Your task to perform on an android device: Open my contact list Image 0: 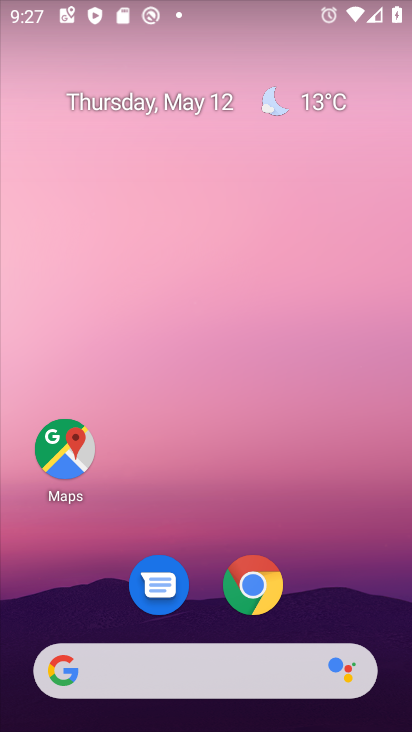
Step 0: drag from (206, 488) to (175, 34)
Your task to perform on an android device: Open my contact list Image 1: 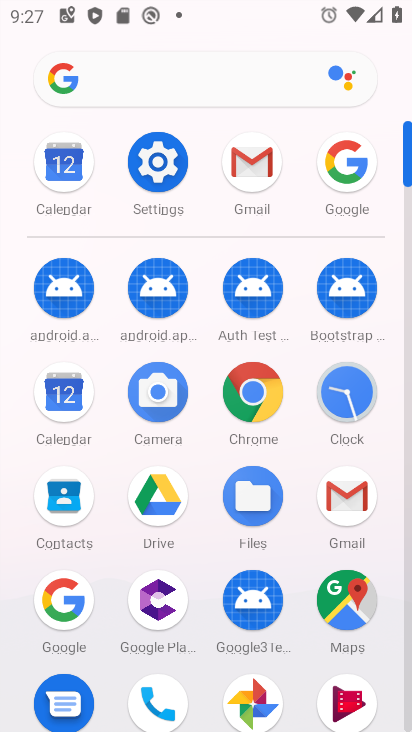
Step 1: click (64, 500)
Your task to perform on an android device: Open my contact list Image 2: 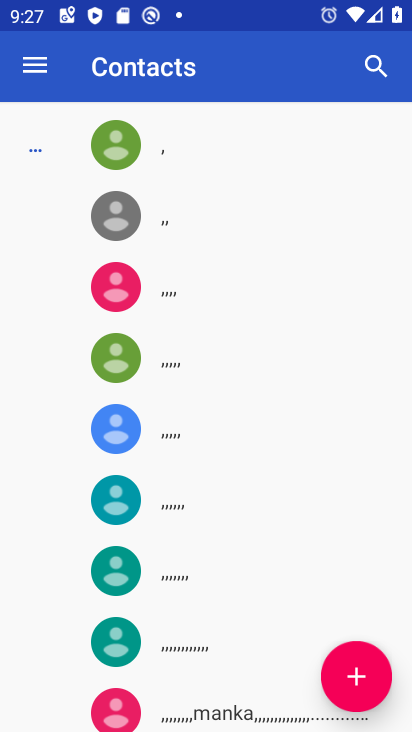
Step 2: task complete